Your task to perform on an android device: Clear the shopping cart on amazon. Image 0: 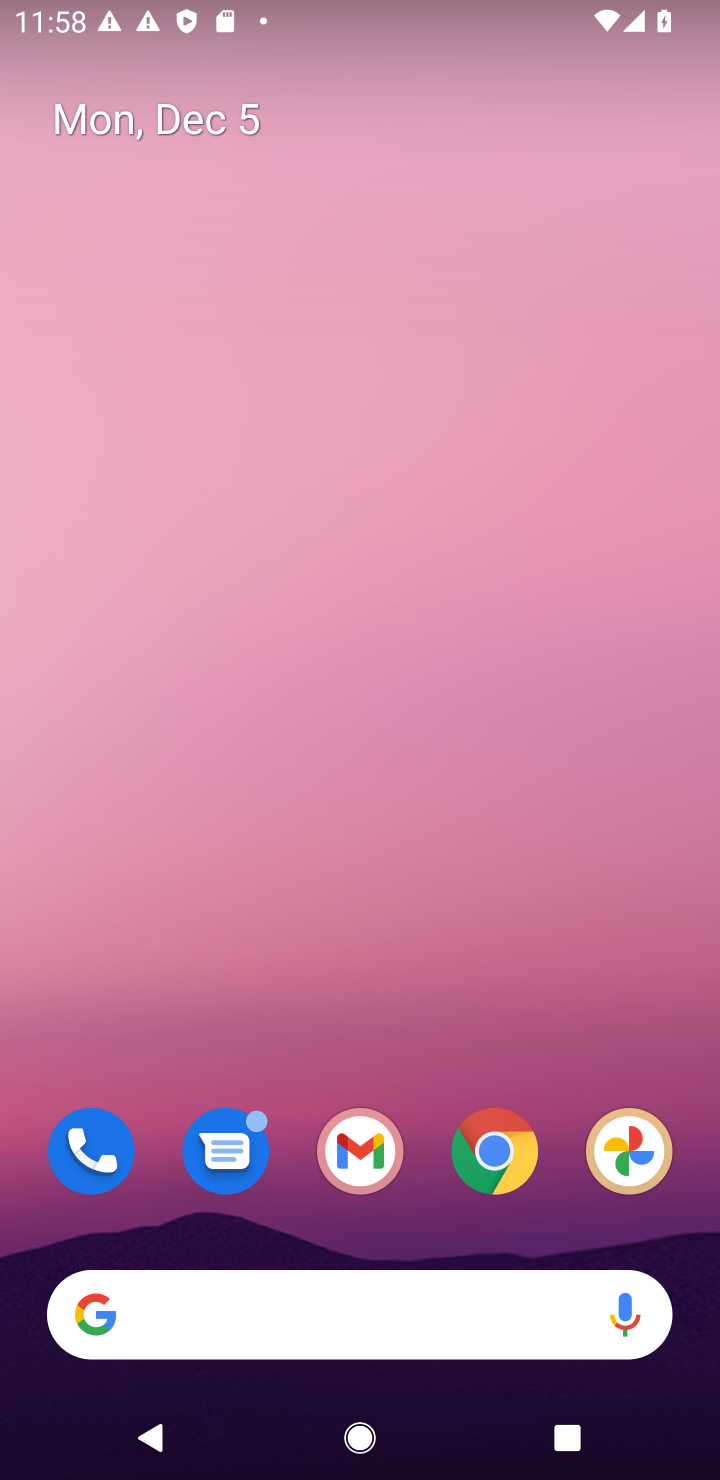
Step 0: click (483, 1150)
Your task to perform on an android device: Clear the shopping cart on amazon. Image 1: 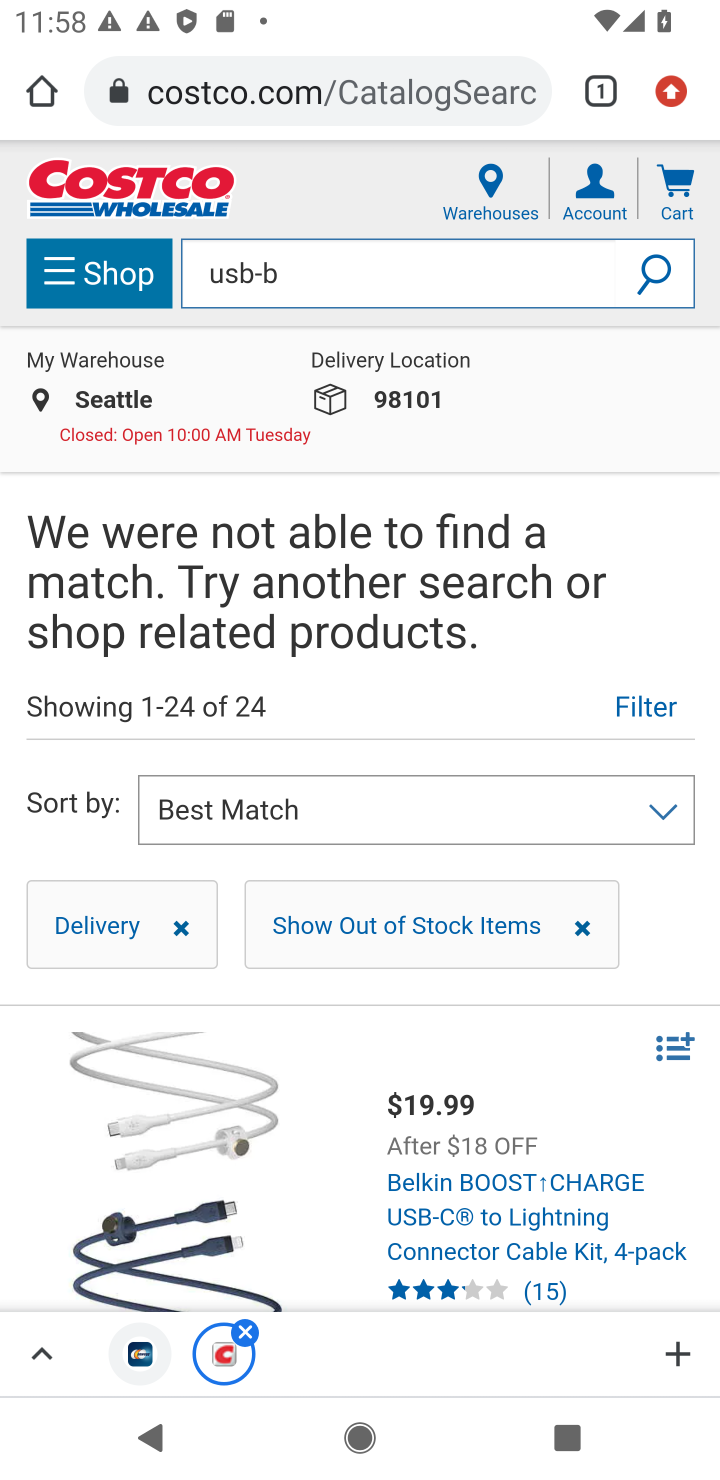
Step 1: click (292, 97)
Your task to perform on an android device: Clear the shopping cart on amazon. Image 2: 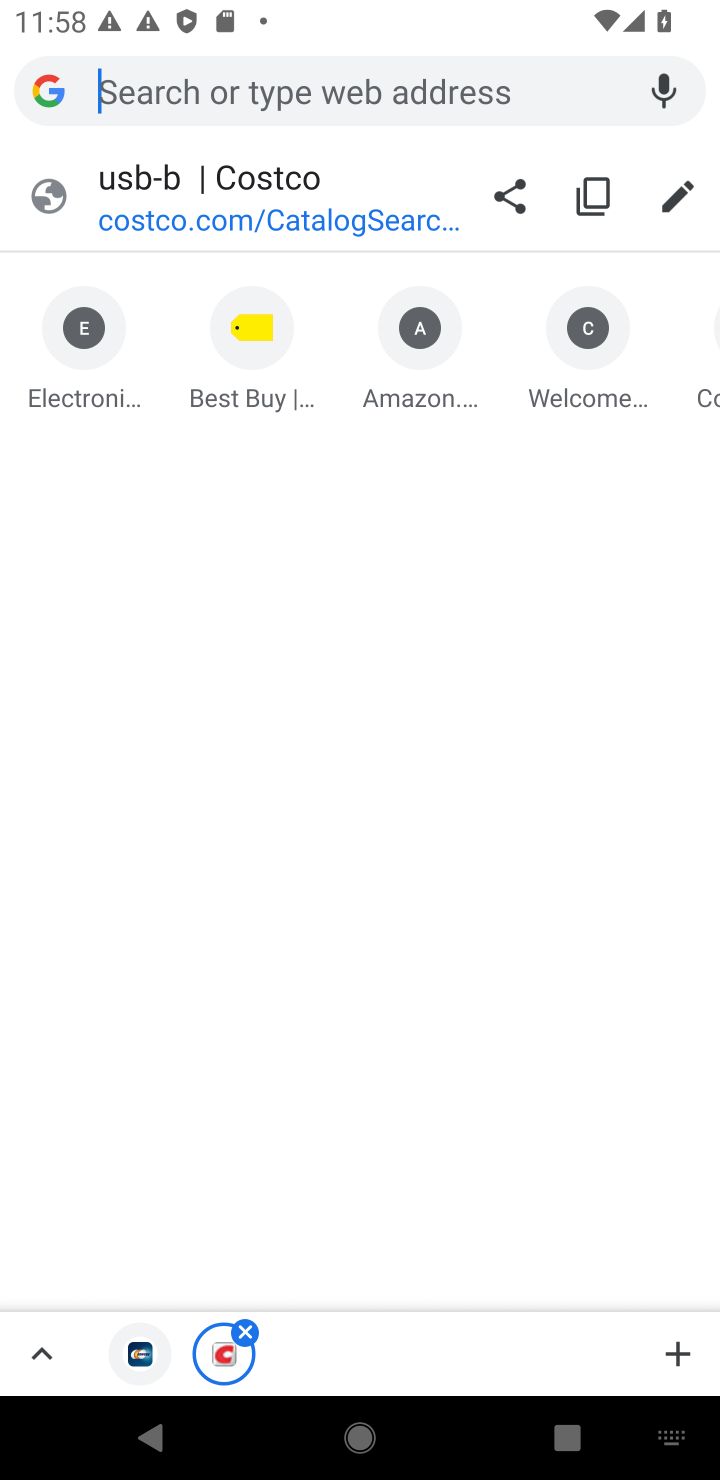
Step 2: click (421, 386)
Your task to perform on an android device: Clear the shopping cart on amazon. Image 3: 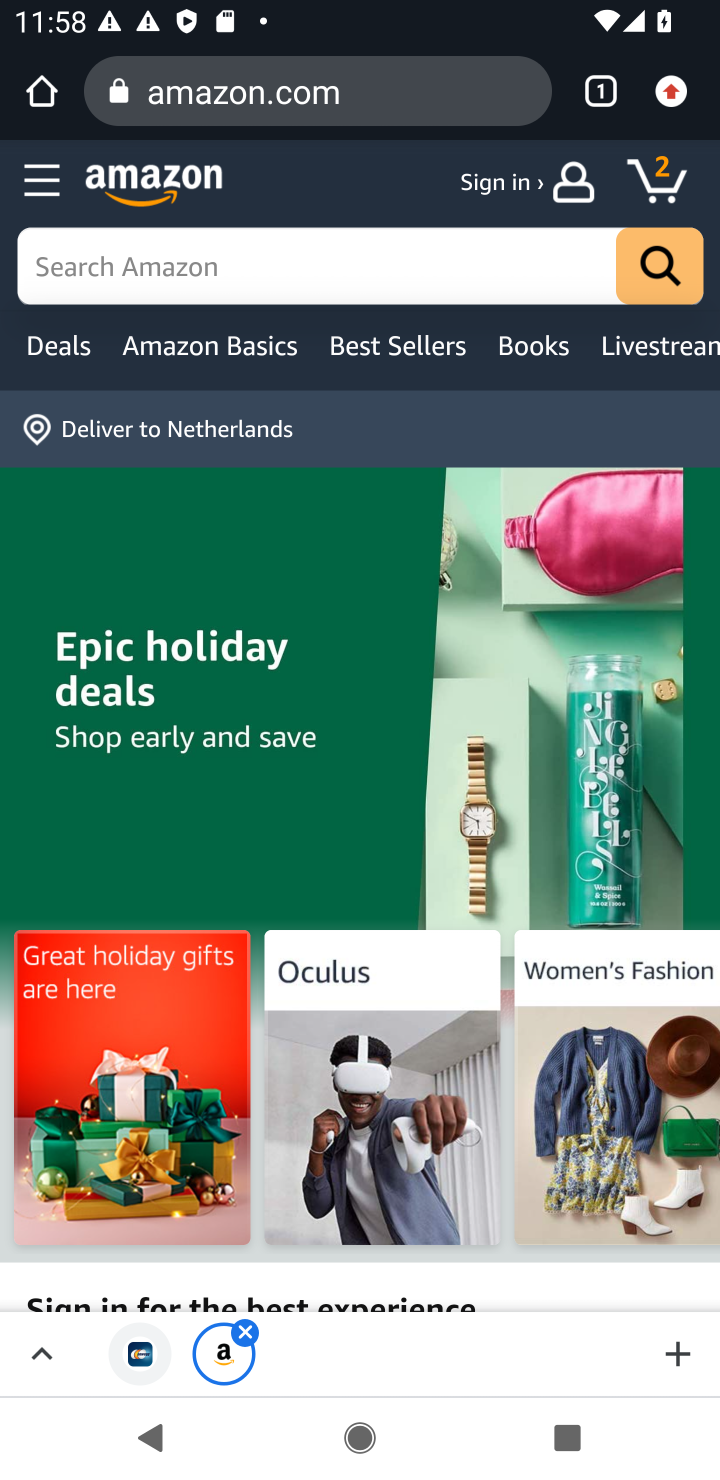
Step 3: click (668, 186)
Your task to perform on an android device: Clear the shopping cart on amazon. Image 4: 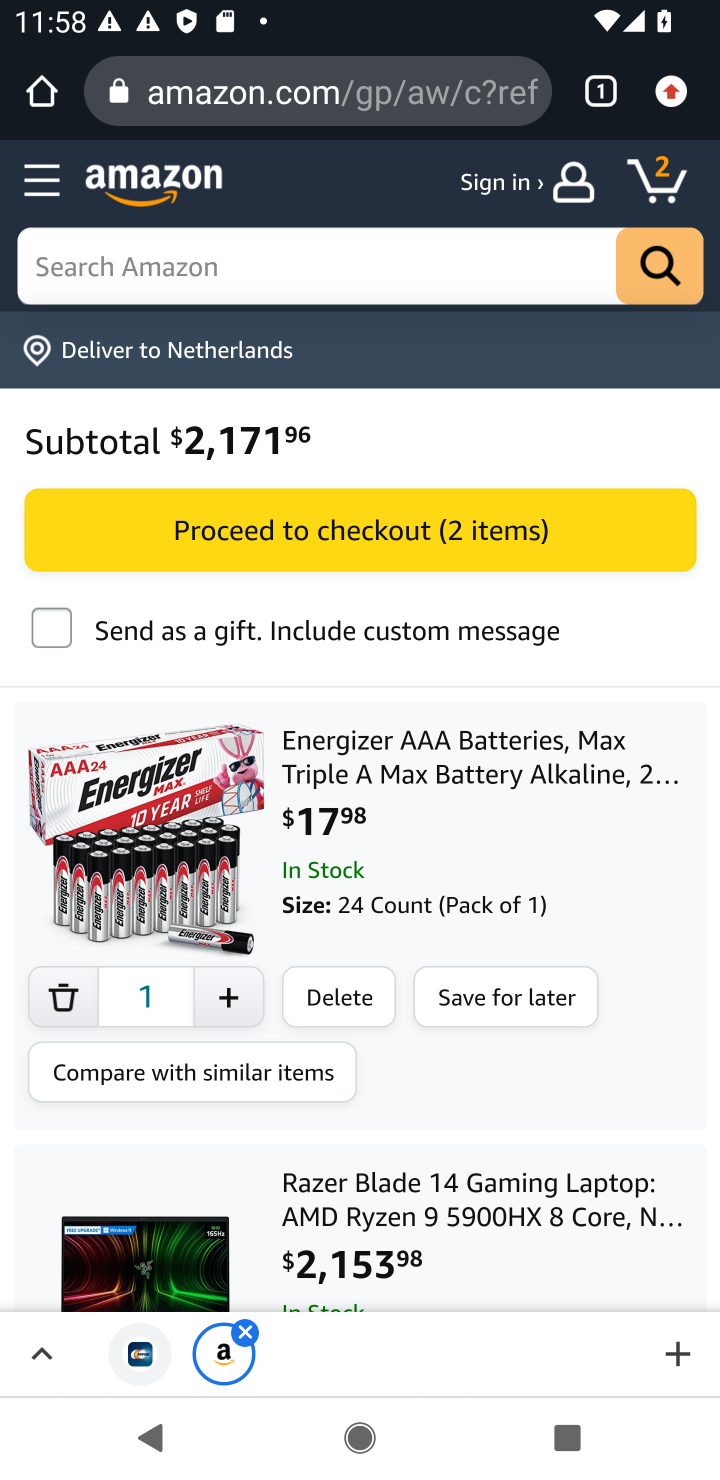
Step 4: click (329, 1001)
Your task to perform on an android device: Clear the shopping cart on amazon. Image 5: 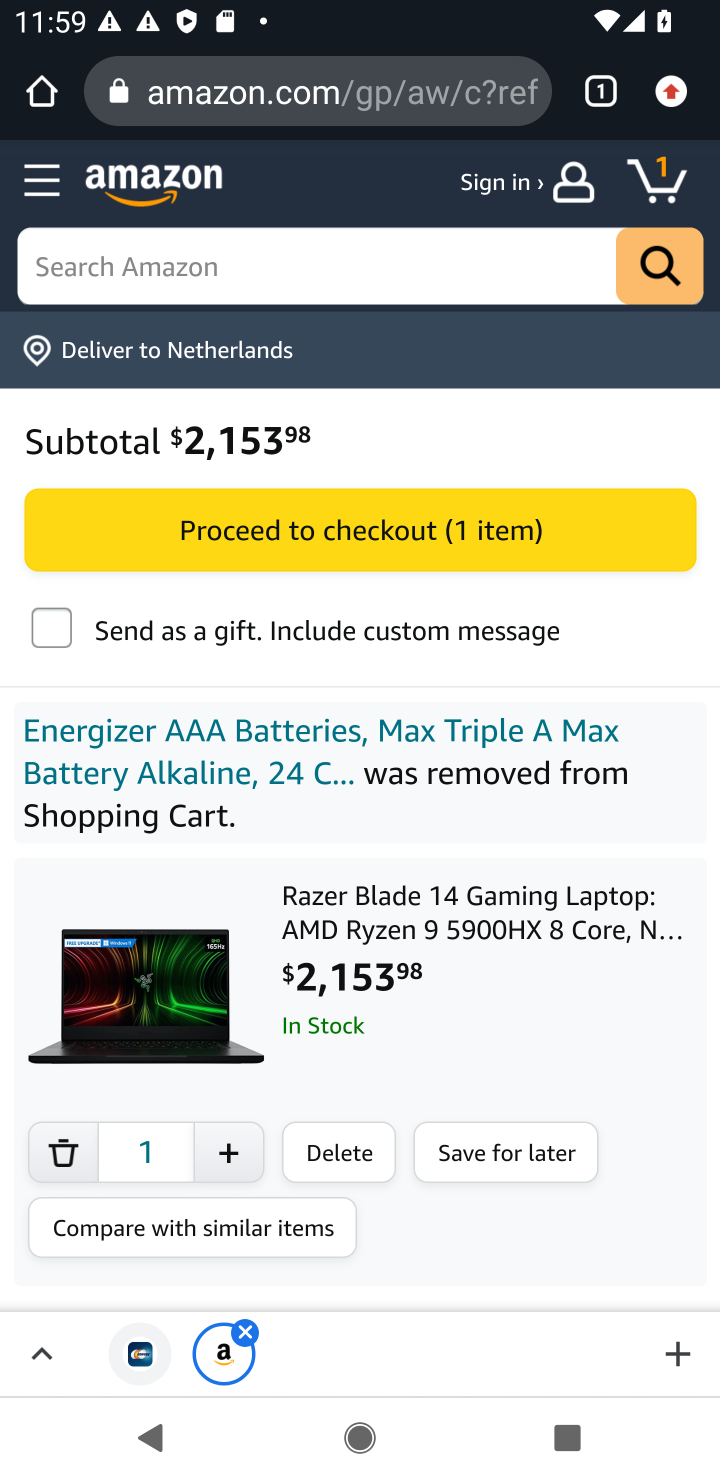
Step 5: click (331, 1150)
Your task to perform on an android device: Clear the shopping cart on amazon. Image 6: 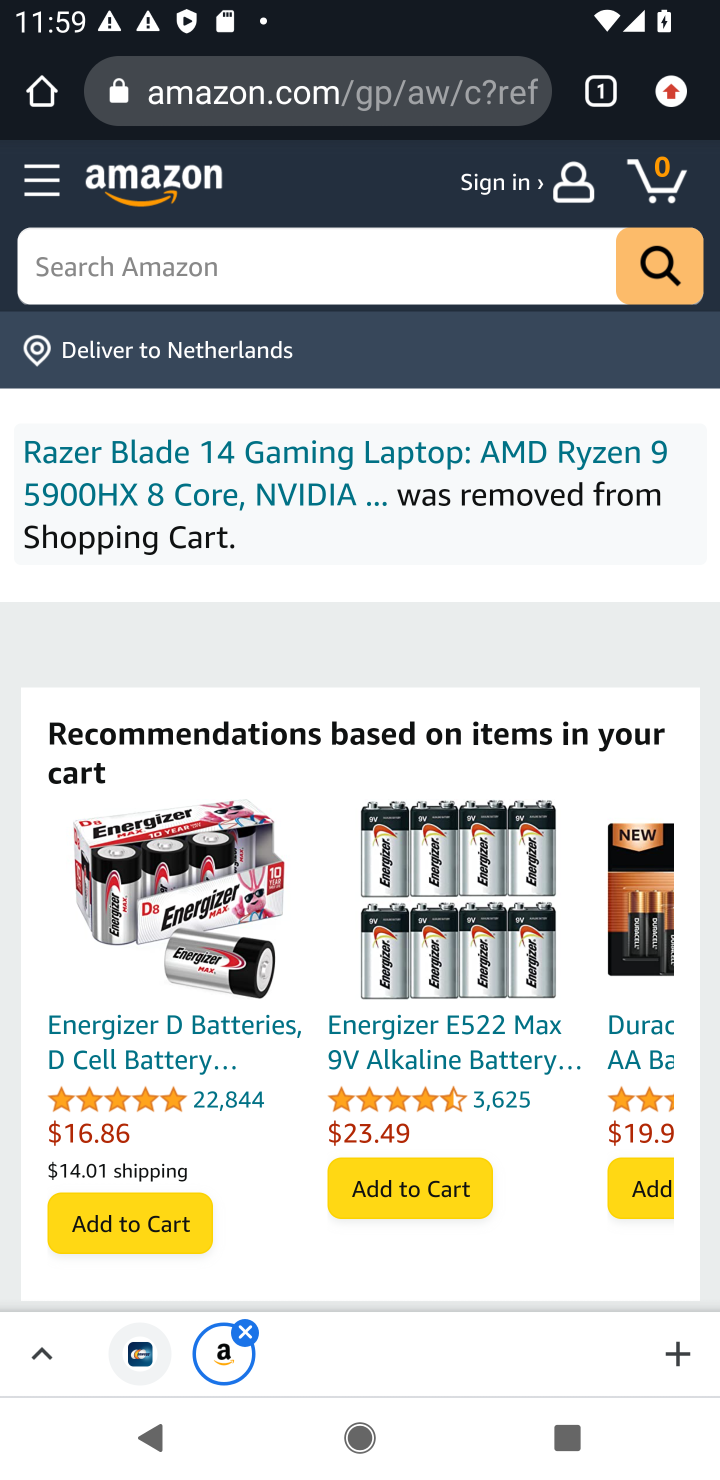
Step 6: task complete